Your task to perform on an android device: turn on the 24-hour format for clock Image 0: 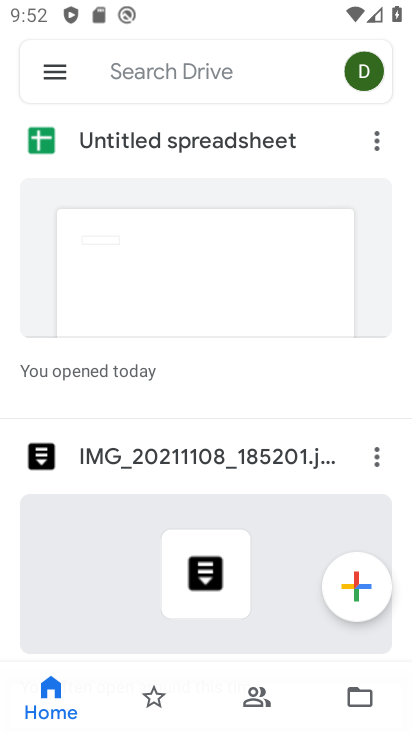
Step 0: press home button
Your task to perform on an android device: turn on the 24-hour format for clock Image 1: 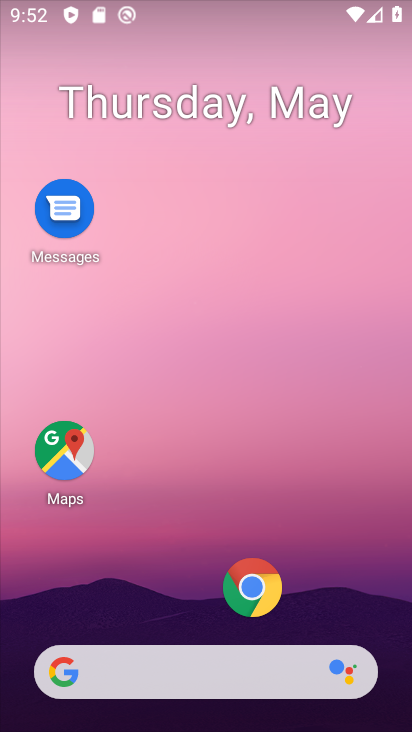
Step 1: drag from (192, 626) to (135, 21)
Your task to perform on an android device: turn on the 24-hour format for clock Image 2: 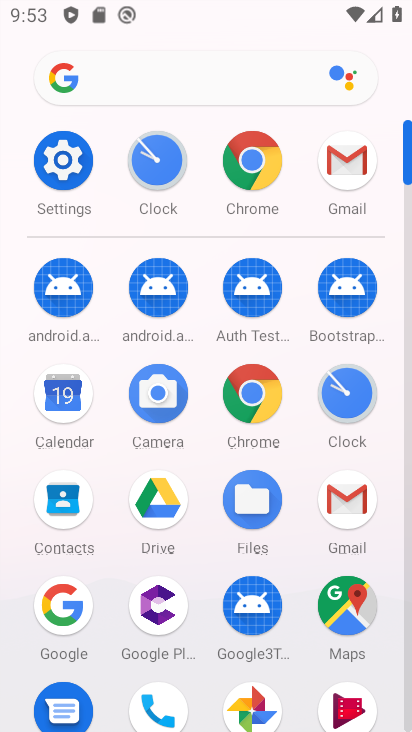
Step 2: click (336, 418)
Your task to perform on an android device: turn on the 24-hour format for clock Image 3: 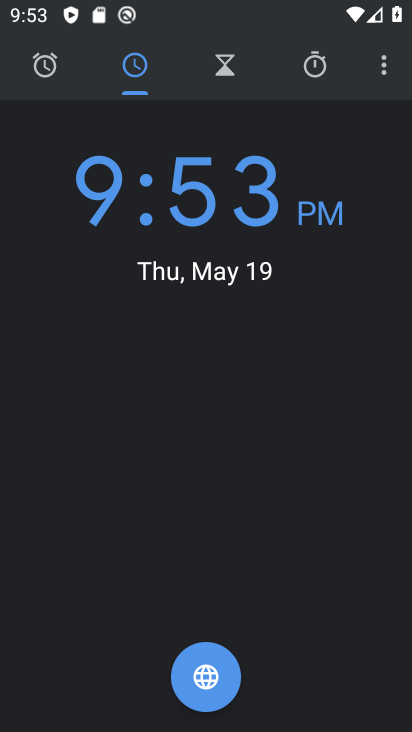
Step 3: click (380, 56)
Your task to perform on an android device: turn on the 24-hour format for clock Image 4: 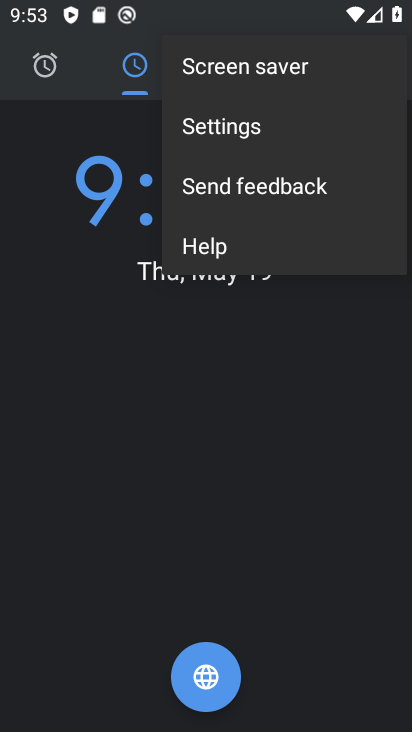
Step 4: click (225, 109)
Your task to perform on an android device: turn on the 24-hour format for clock Image 5: 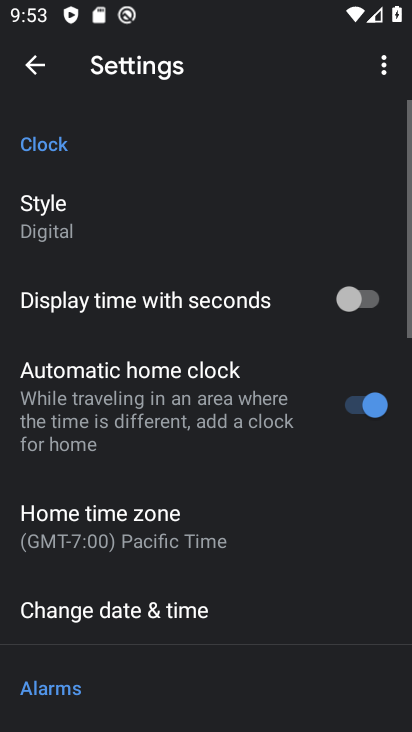
Step 5: click (157, 614)
Your task to perform on an android device: turn on the 24-hour format for clock Image 6: 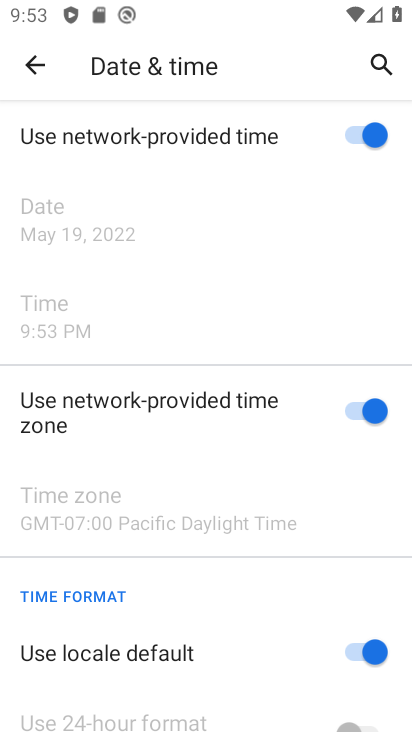
Step 6: click (353, 649)
Your task to perform on an android device: turn on the 24-hour format for clock Image 7: 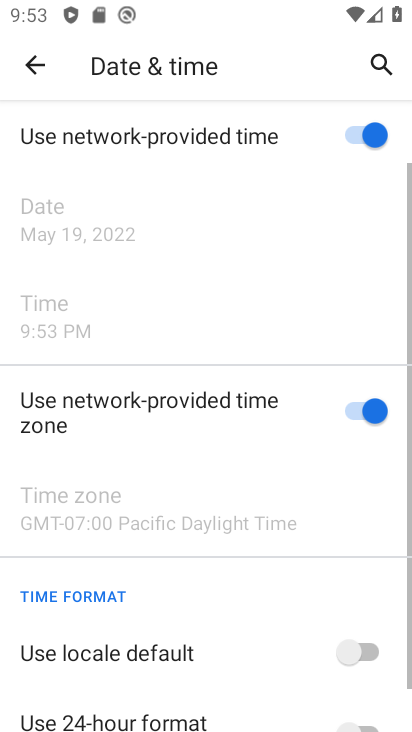
Step 7: click (358, 714)
Your task to perform on an android device: turn on the 24-hour format for clock Image 8: 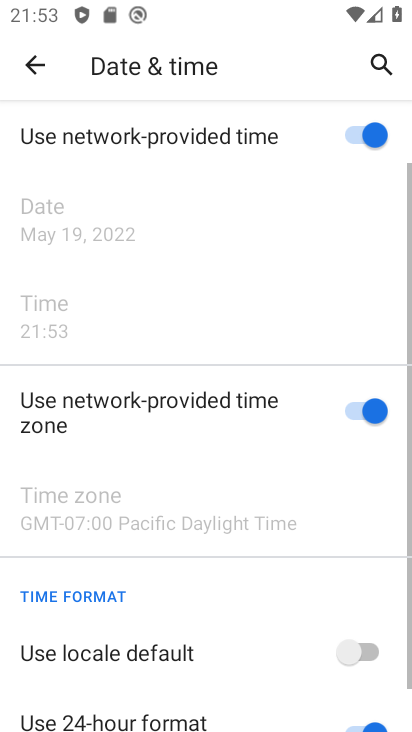
Step 8: task complete